Your task to perform on an android device: Open Maps and search for coffee Image 0: 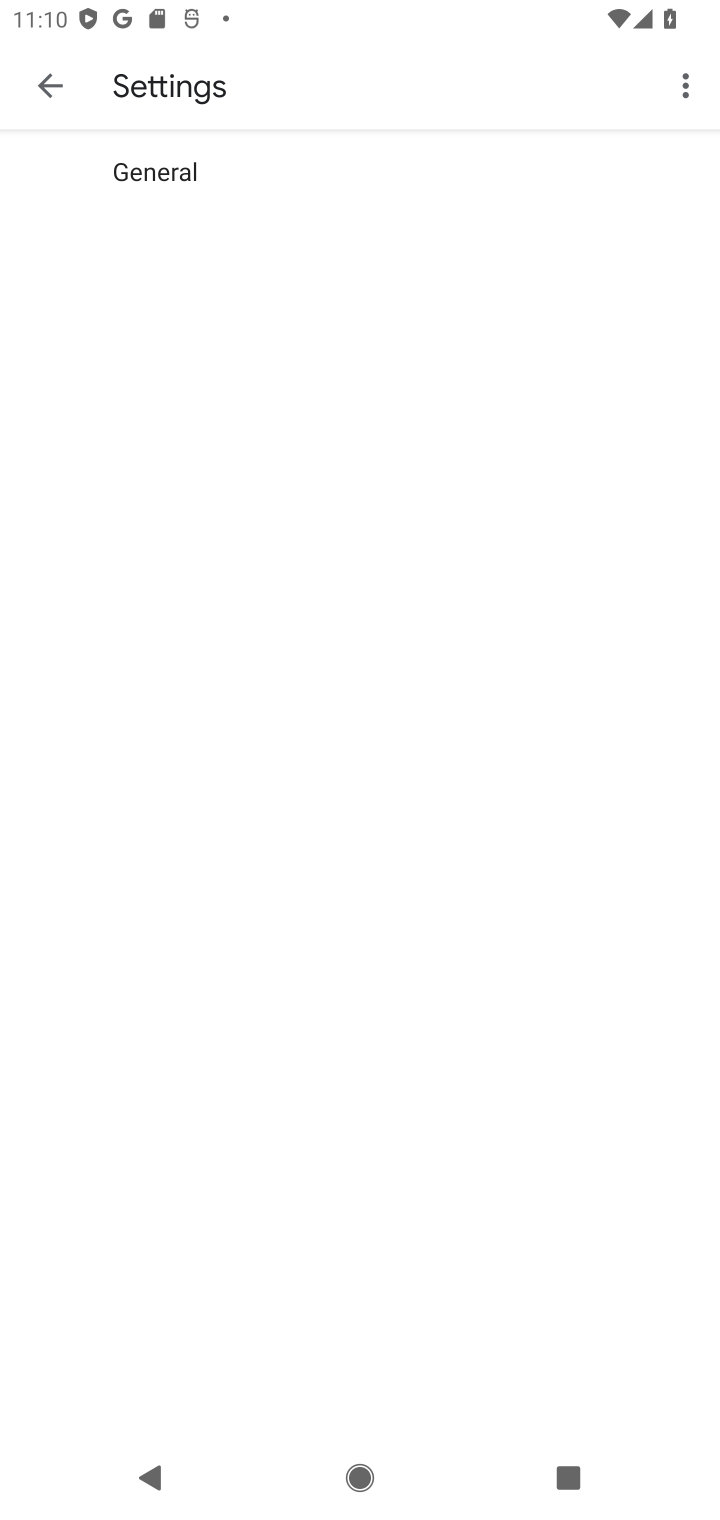
Step 0: press home button
Your task to perform on an android device: Open Maps and search for coffee Image 1: 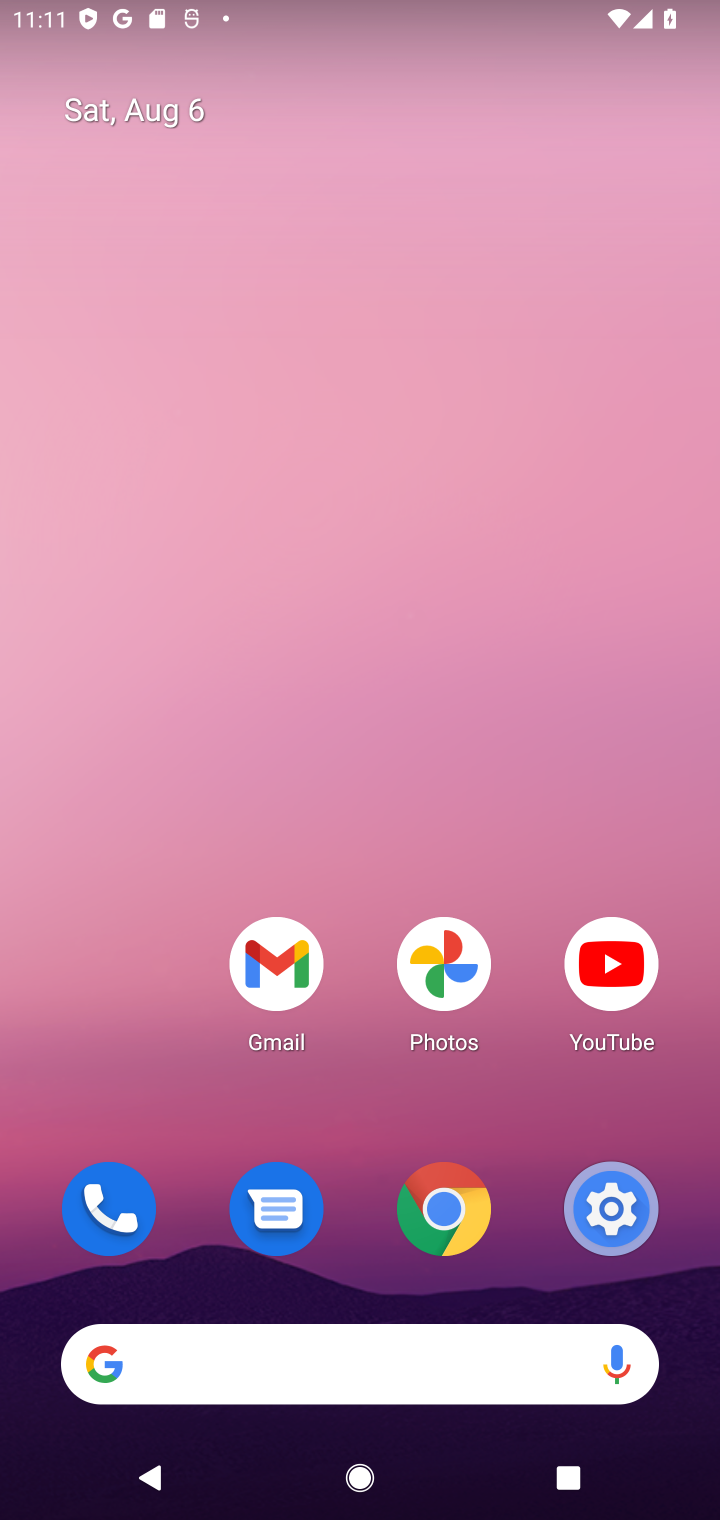
Step 1: drag from (481, 1448) to (505, 371)
Your task to perform on an android device: Open Maps and search for coffee Image 2: 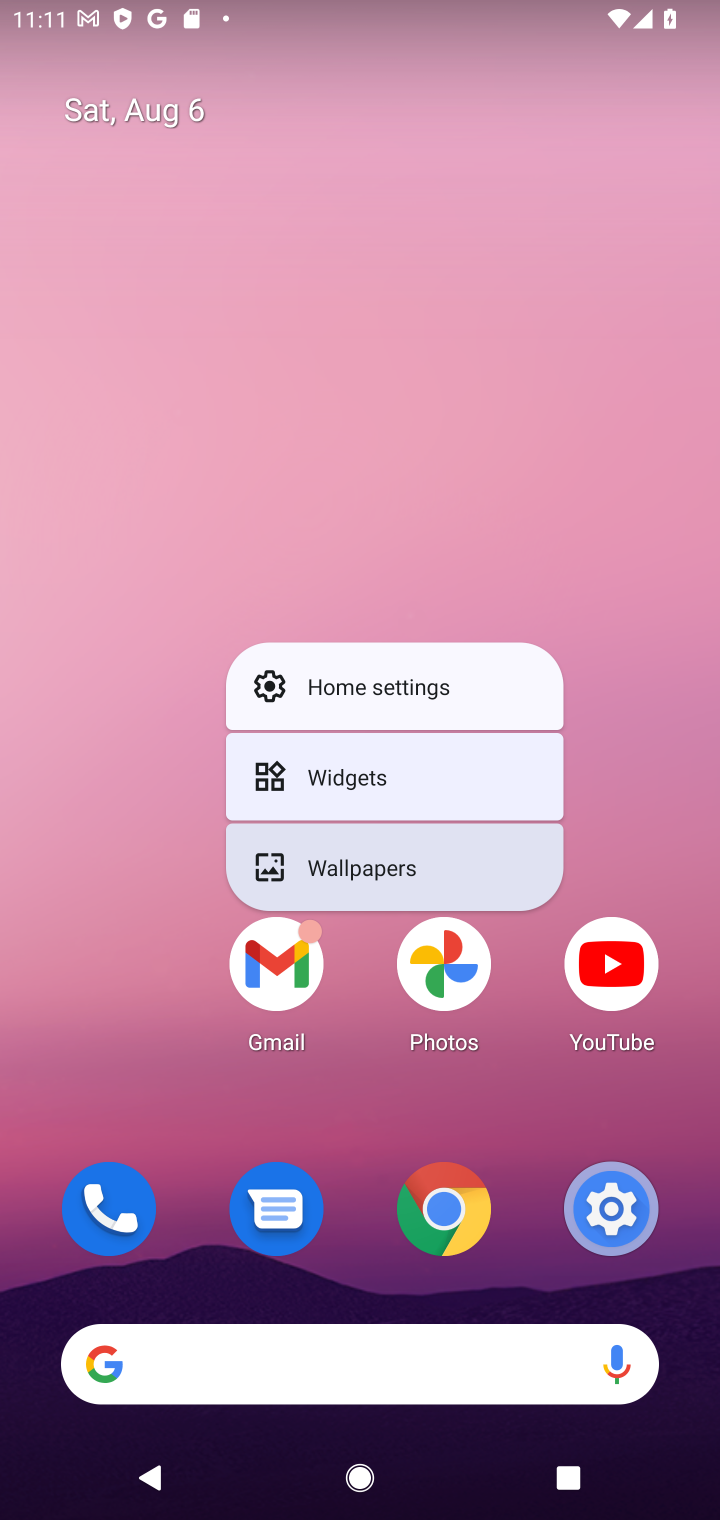
Step 2: click (402, 447)
Your task to perform on an android device: Open Maps and search for coffee Image 3: 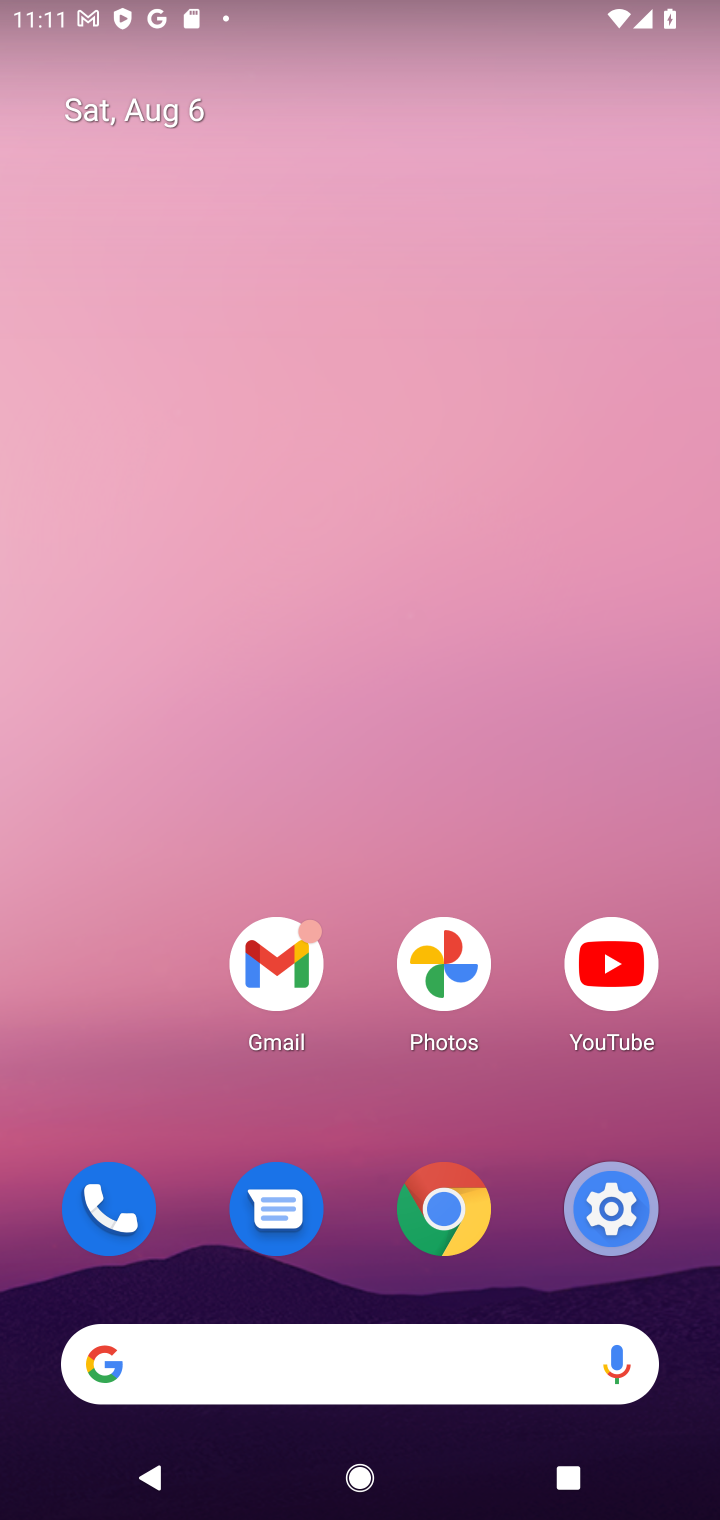
Step 3: drag from (246, 1318) to (427, 13)
Your task to perform on an android device: Open Maps and search for coffee Image 4: 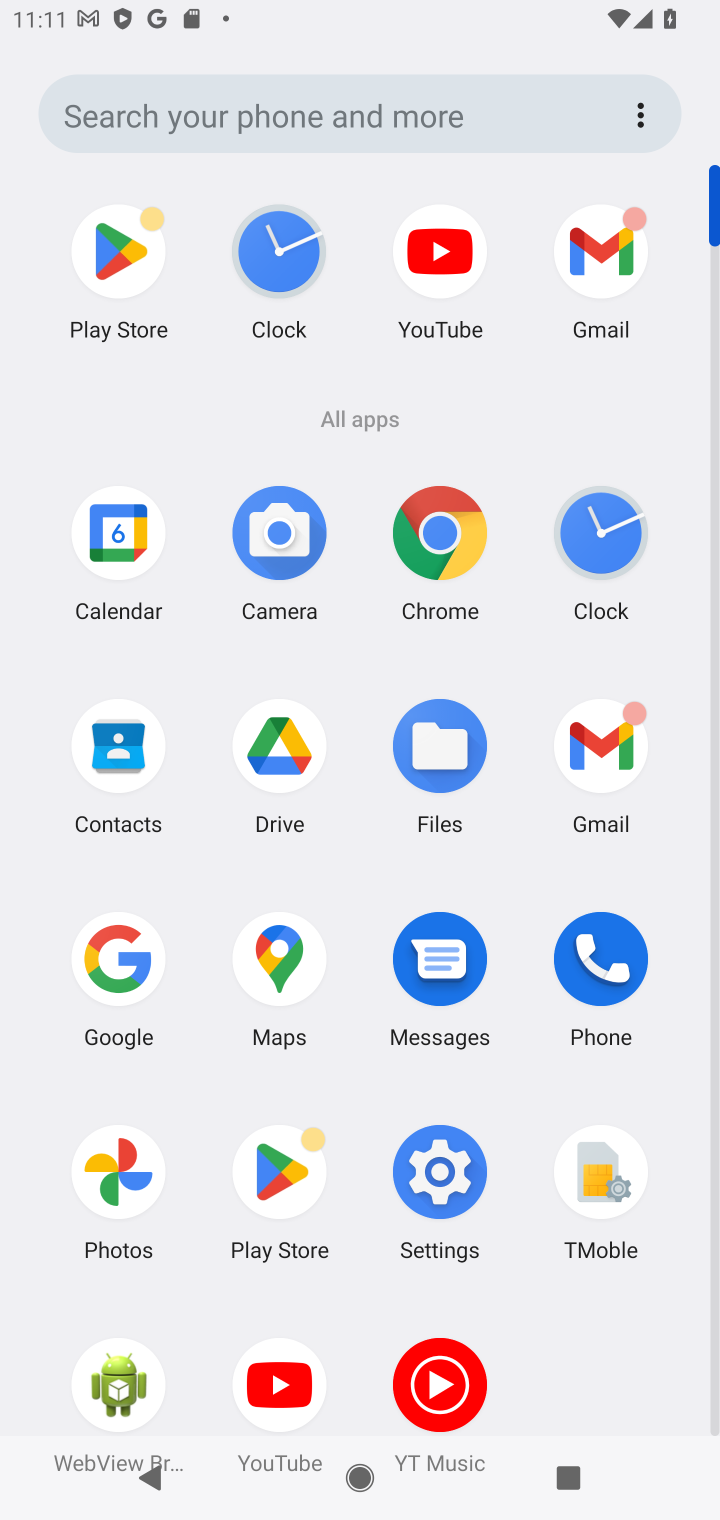
Step 4: click (282, 987)
Your task to perform on an android device: Open Maps and search for coffee Image 5: 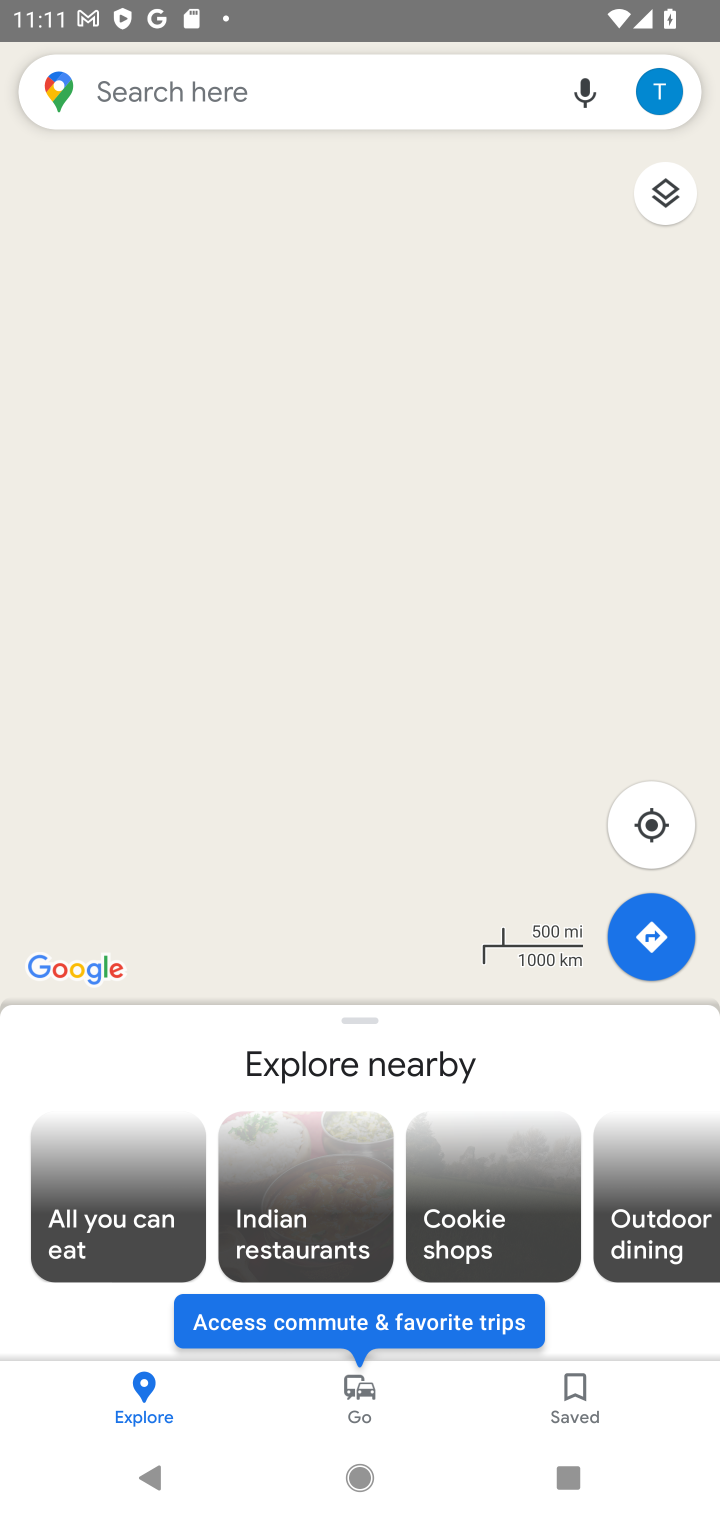
Step 5: click (367, 101)
Your task to perform on an android device: Open Maps and search for coffee Image 6: 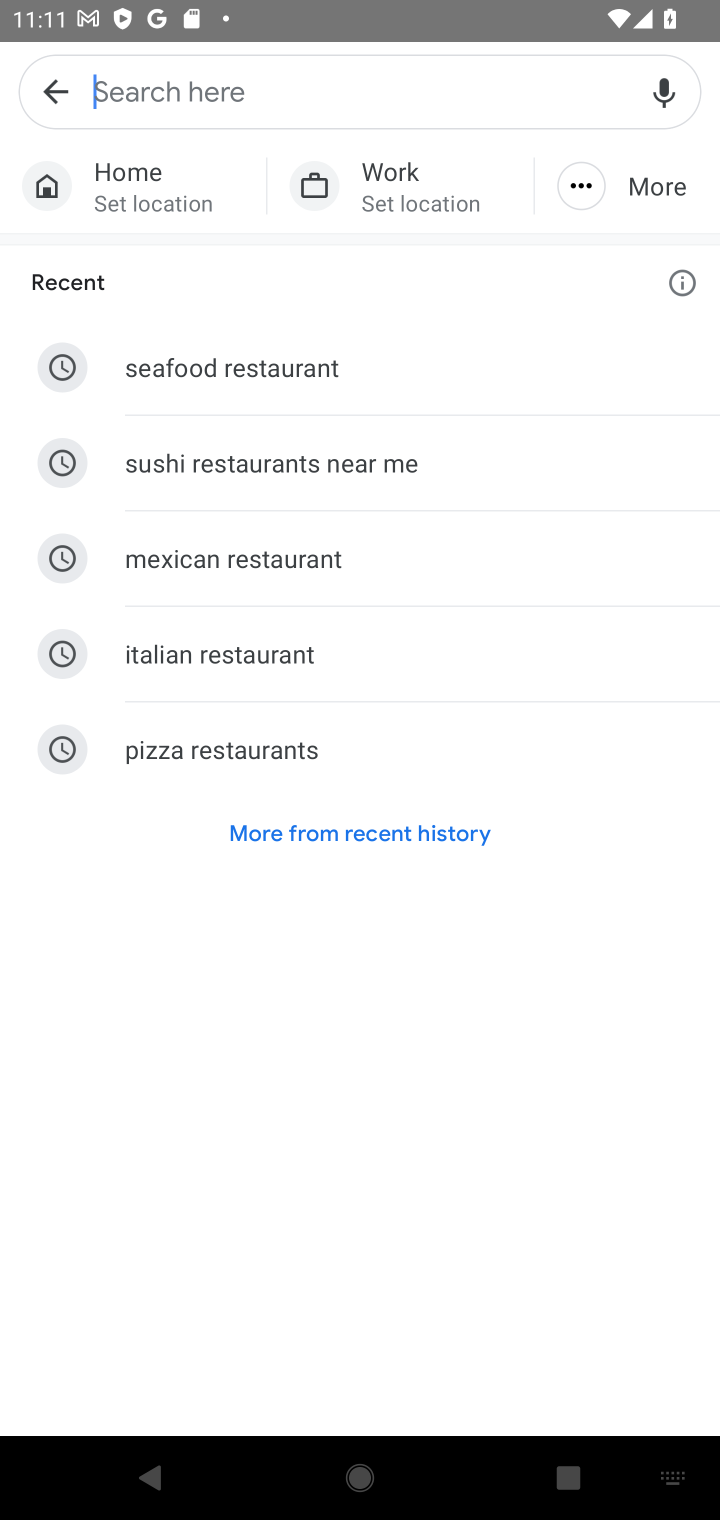
Step 6: type "coffee"
Your task to perform on an android device: Open Maps and search for coffee Image 7: 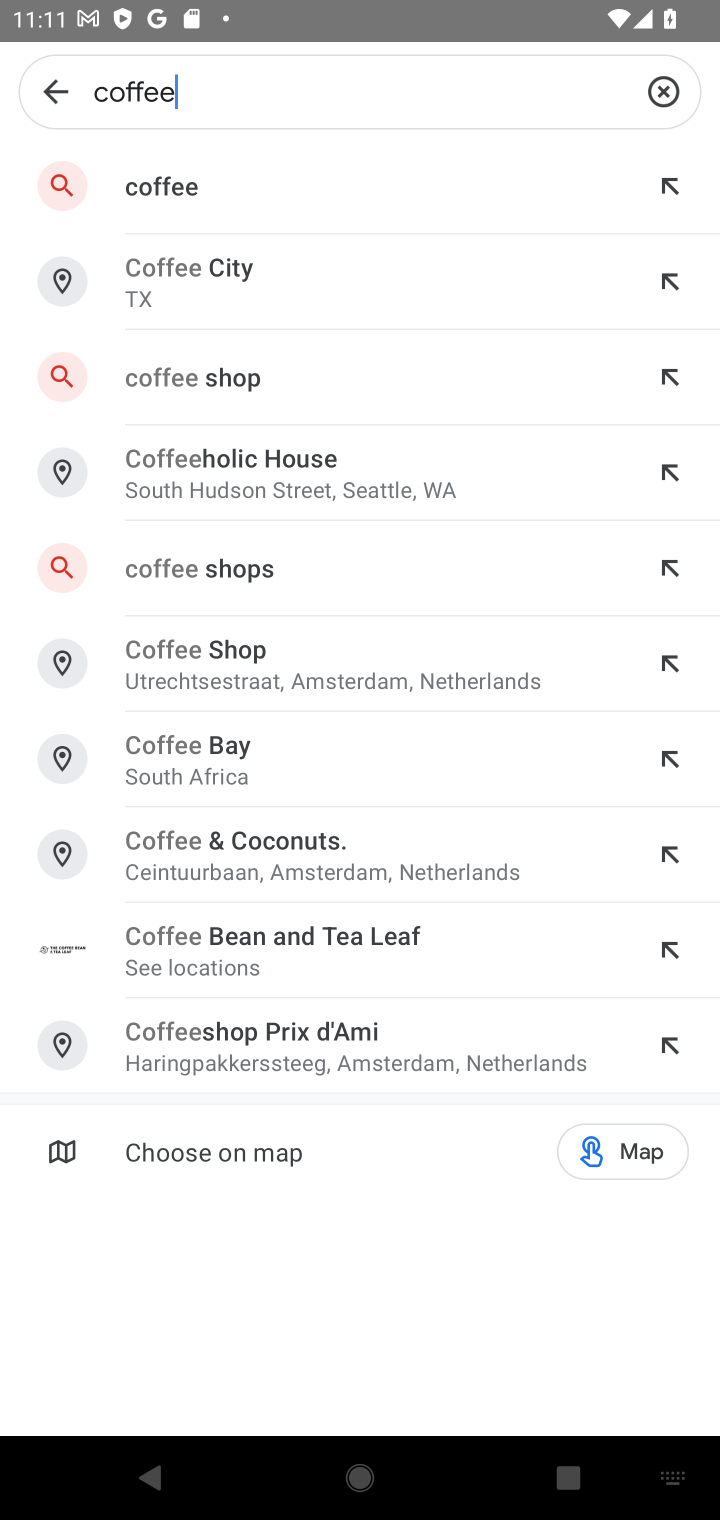
Step 7: click (200, 200)
Your task to perform on an android device: Open Maps and search for coffee Image 8: 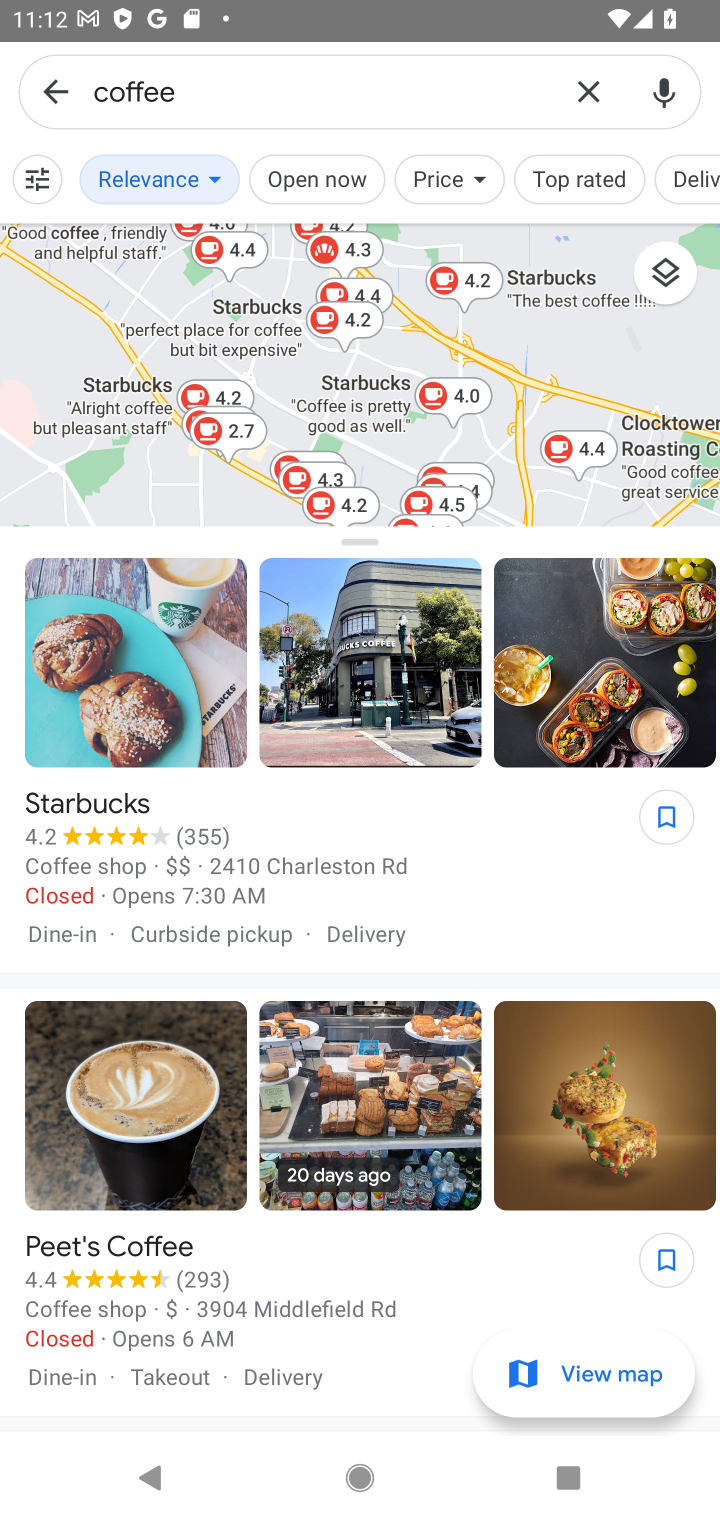
Step 8: task complete